Your task to perform on an android device: empty trash in google photos Image 0: 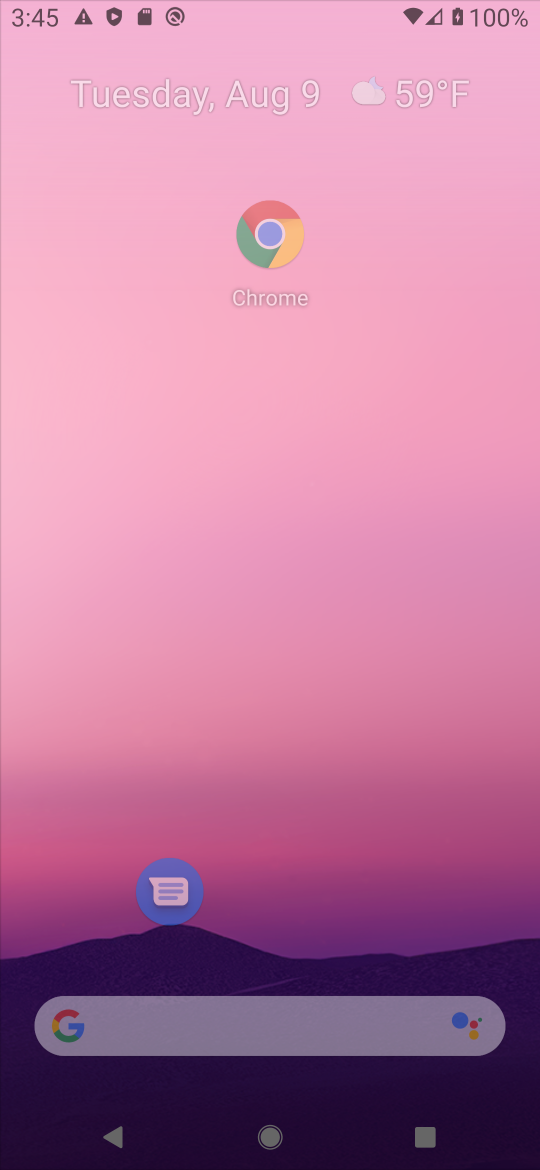
Step 0: click (211, 473)
Your task to perform on an android device: empty trash in google photos Image 1: 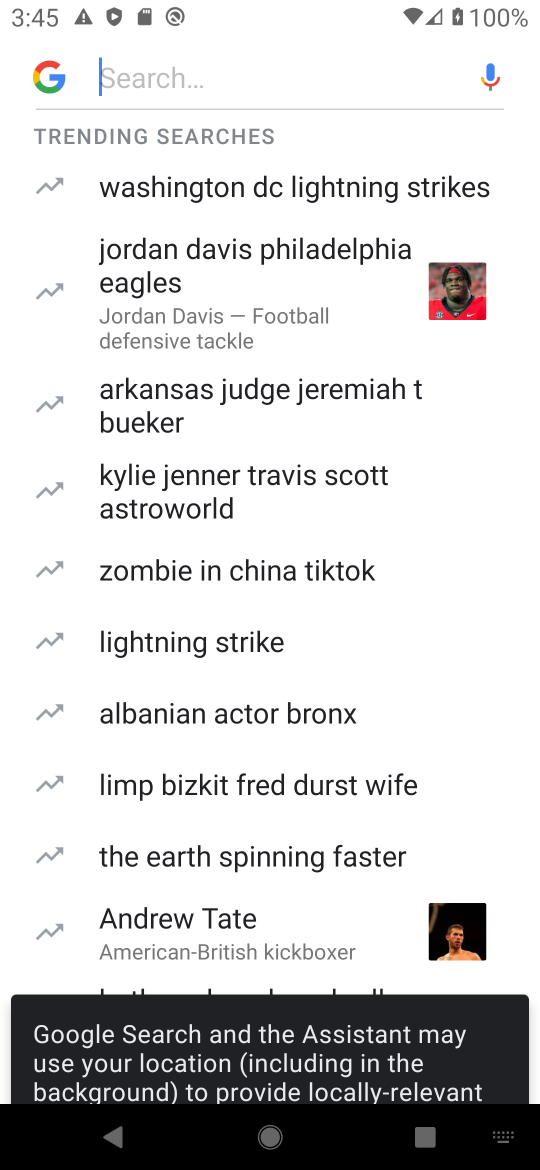
Step 1: task complete